Your task to perform on an android device: search for starred emails in the gmail app Image 0: 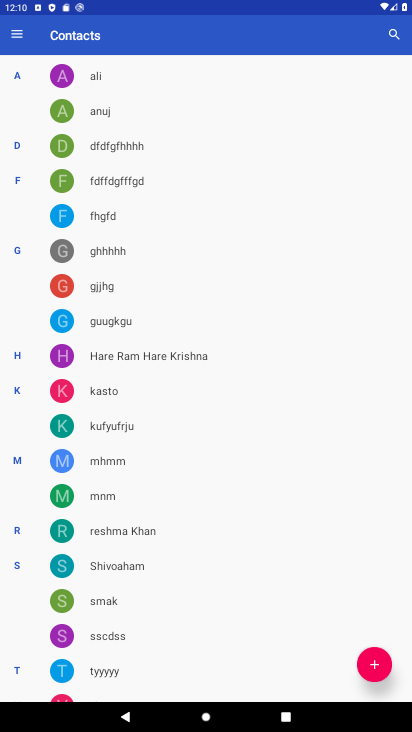
Step 0: press home button
Your task to perform on an android device: search for starred emails in the gmail app Image 1: 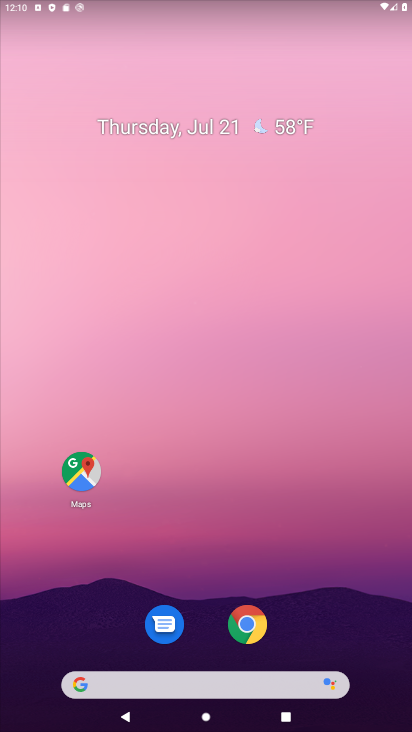
Step 1: drag from (206, 599) to (210, 182)
Your task to perform on an android device: search for starred emails in the gmail app Image 2: 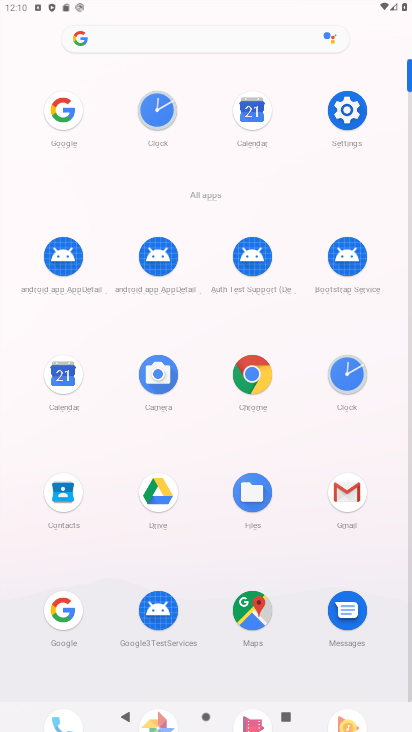
Step 2: click (331, 495)
Your task to perform on an android device: search for starred emails in the gmail app Image 3: 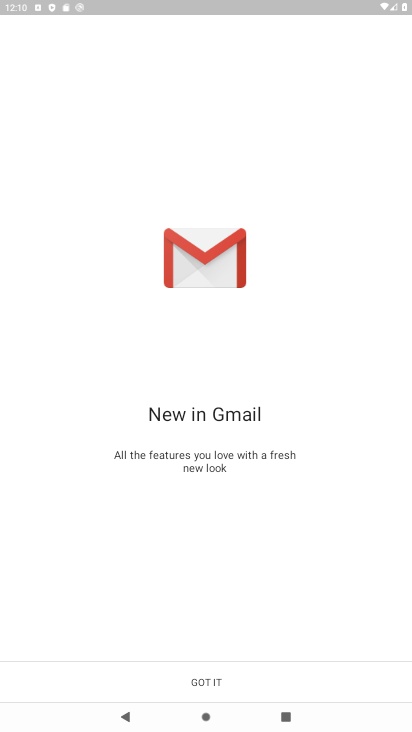
Step 3: click (240, 686)
Your task to perform on an android device: search for starred emails in the gmail app Image 4: 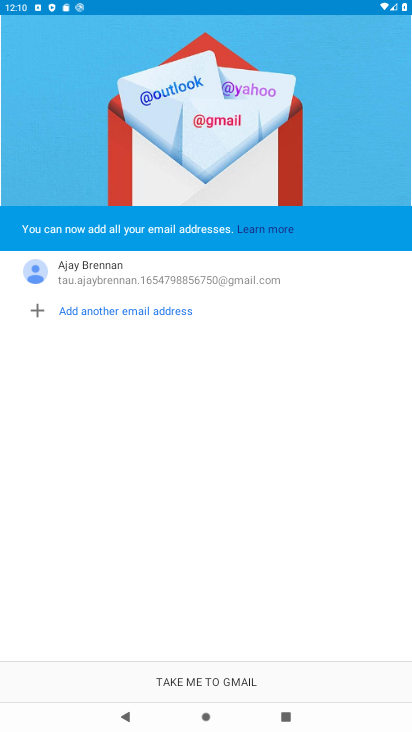
Step 4: click (240, 686)
Your task to perform on an android device: search for starred emails in the gmail app Image 5: 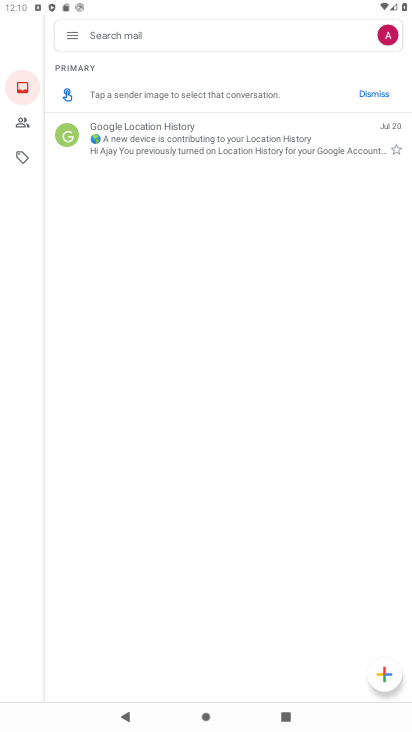
Step 5: click (65, 39)
Your task to perform on an android device: search for starred emails in the gmail app Image 6: 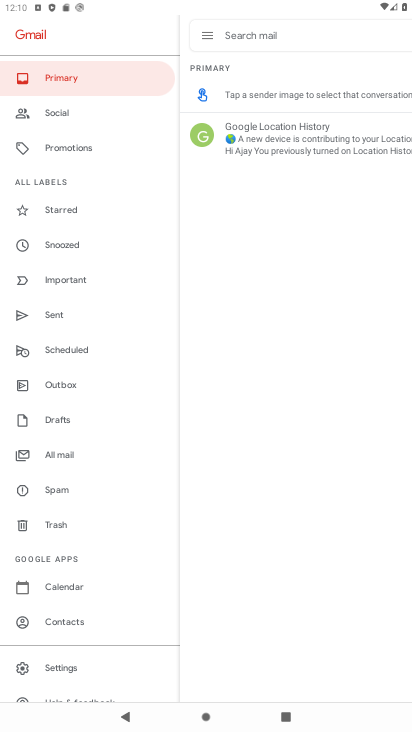
Step 6: click (76, 206)
Your task to perform on an android device: search for starred emails in the gmail app Image 7: 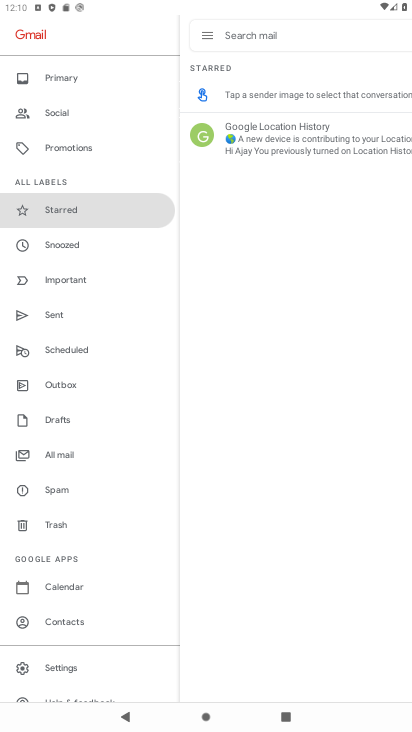
Step 7: task complete